Your task to perform on an android device: see tabs open on other devices in the chrome app Image 0: 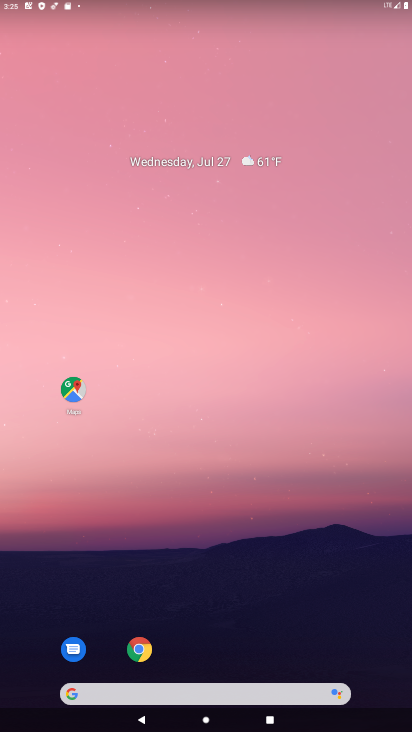
Step 0: click (142, 648)
Your task to perform on an android device: see tabs open on other devices in the chrome app Image 1: 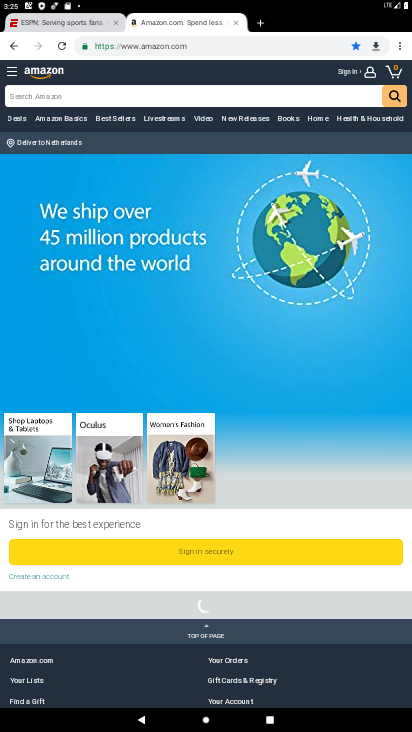
Step 1: click (398, 47)
Your task to perform on an android device: see tabs open on other devices in the chrome app Image 2: 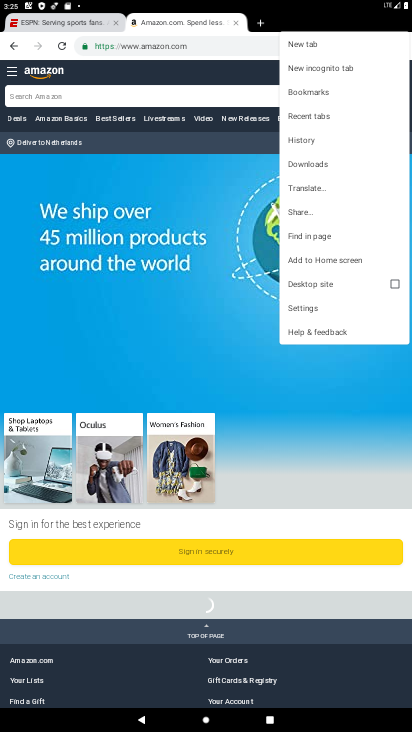
Step 2: click (318, 113)
Your task to perform on an android device: see tabs open on other devices in the chrome app Image 3: 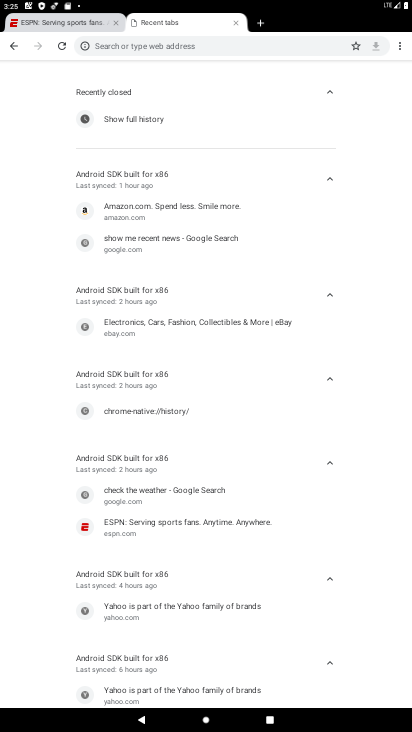
Step 3: task complete